Your task to perform on an android device: snooze an email in the gmail app Image 0: 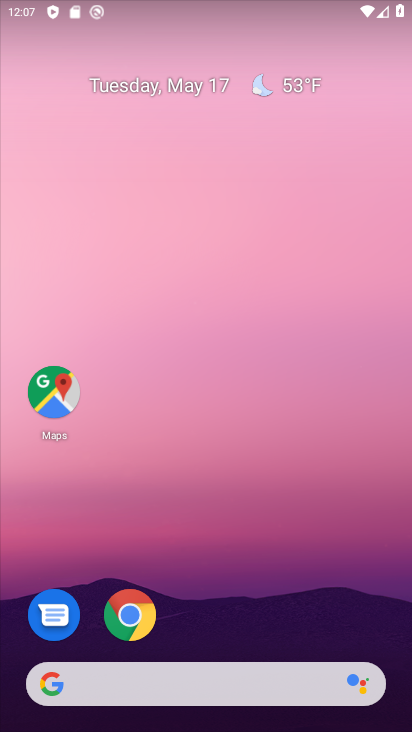
Step 0: drag from (288, 623) to (278, 210)
Your task to perform on an android device: snooze an email in the gmail app Image 1: 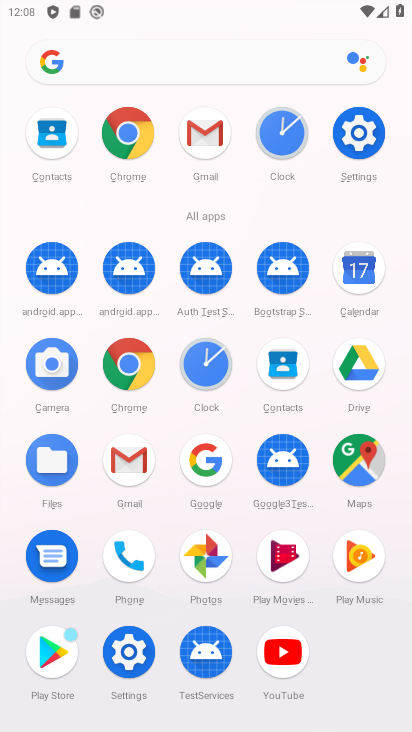
Step 1: click (131, 468)
Your task to perform on an android device: snooze an email in the gmail app Image 2: 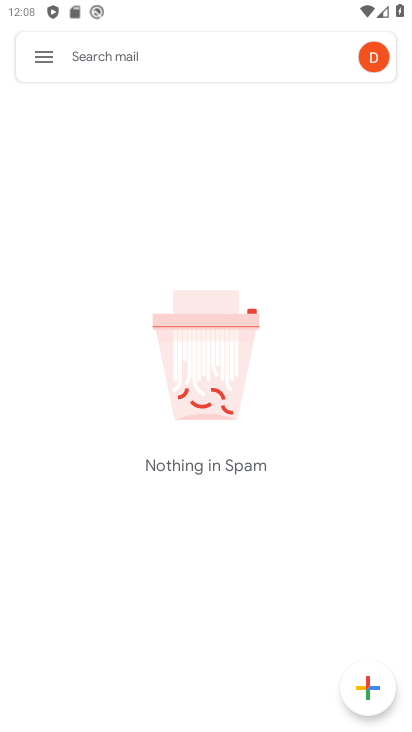
Step 2: click (44, 58)
Your task to perform on an android device: snooze an email in the gmail app Image 3: 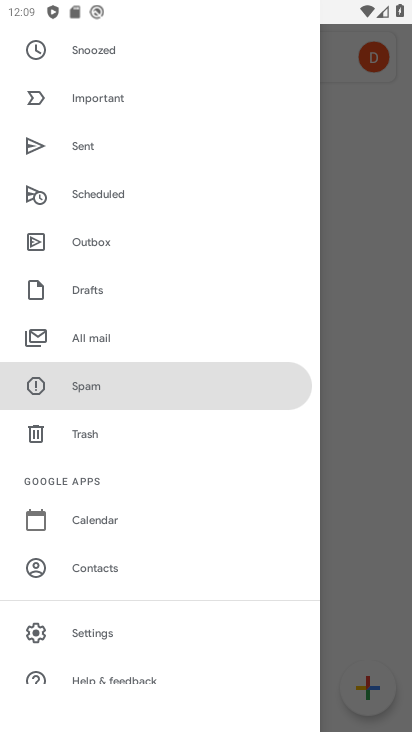
Step 3: click (115, 48)
Your task to perform on an android device: snooze an email in the gmail app Image 4: 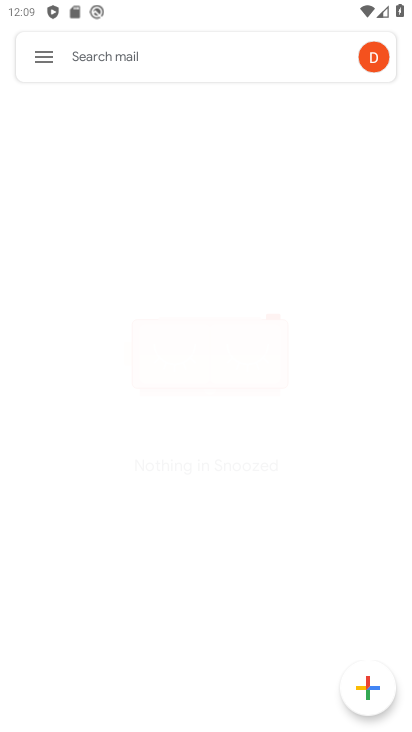
Step 4: task complete